Your task to perform on an android device: Go to Google Image 0: 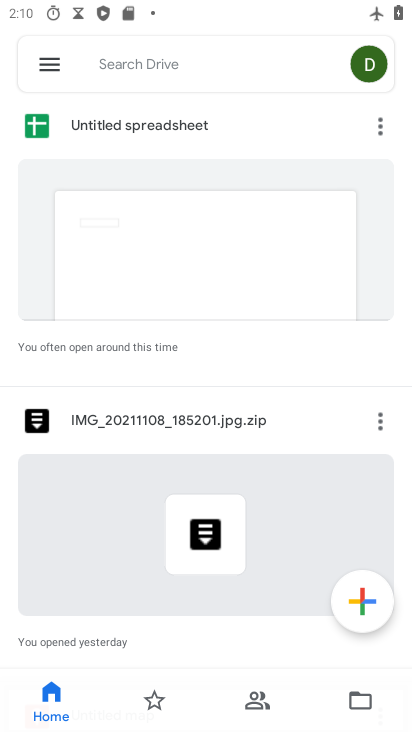
Step 0: press home button
Your task to perform on an android device: Go to Google Image 1: 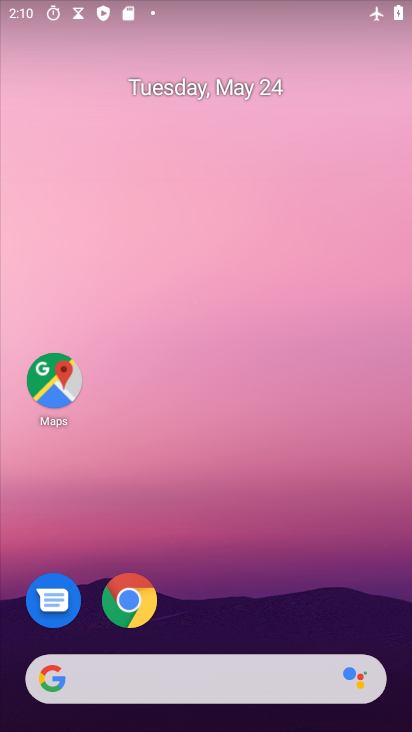
Step 1: drag from (270, 491) to (179, 0)
Your task to perform on an android device: Go to Google Image 2: 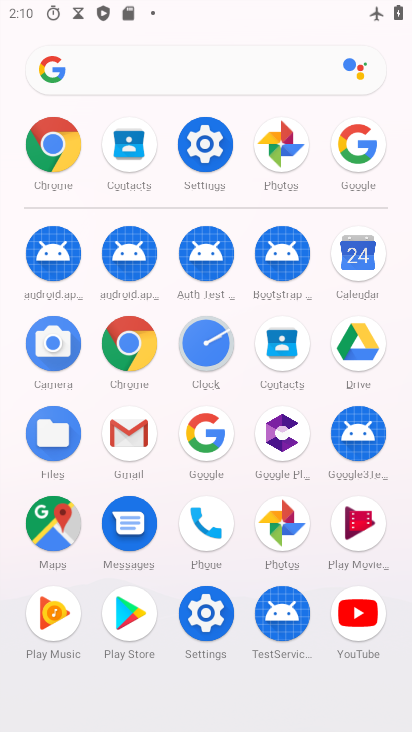
Step 2: click (205, 449)
Your task to perform on an android device: Go to Google Image 3: 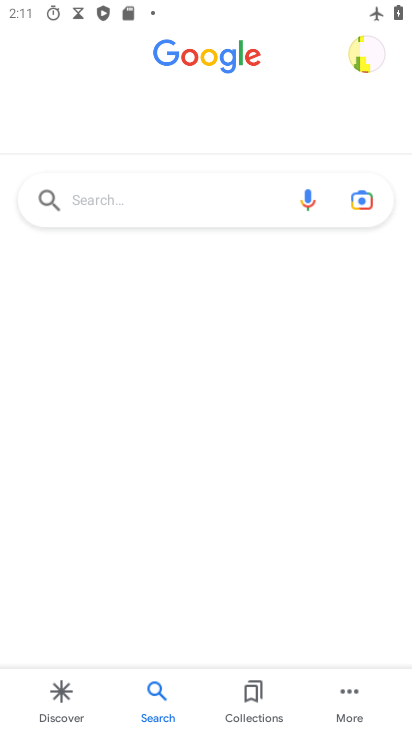
Step 3: task complete